Your task to perform on an android device: toggle notifications settings in the gmail app Image 0: 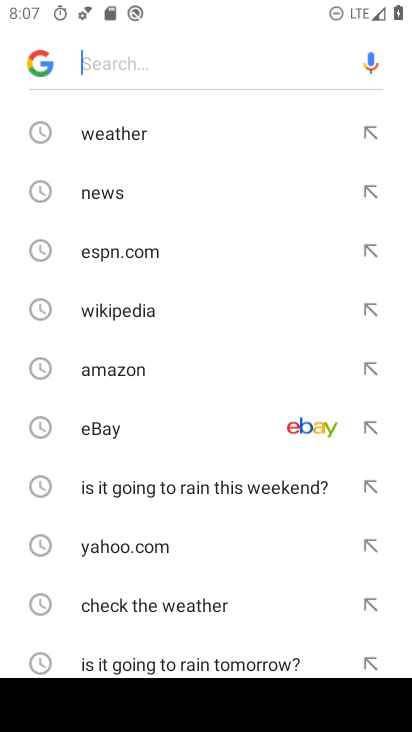
Step 0: press home button
Your task to perform on an android device: toggle notifications settings in the gmail app Image 1: 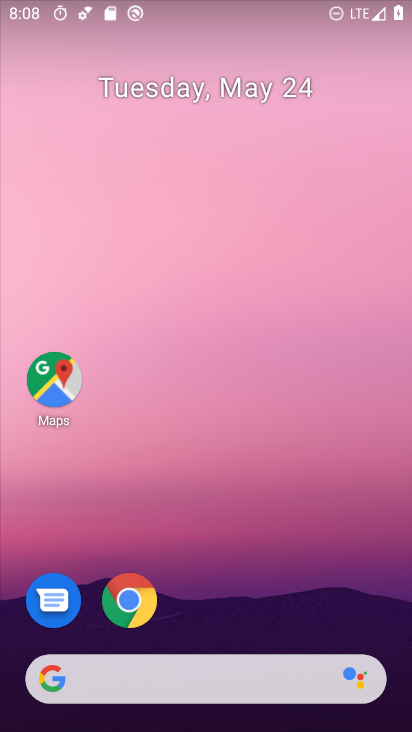
Step 1: drag from (209, 612) to (264, 96)
Your task to perform on an android device: toggle notifications settings in the gmail app Image 2: 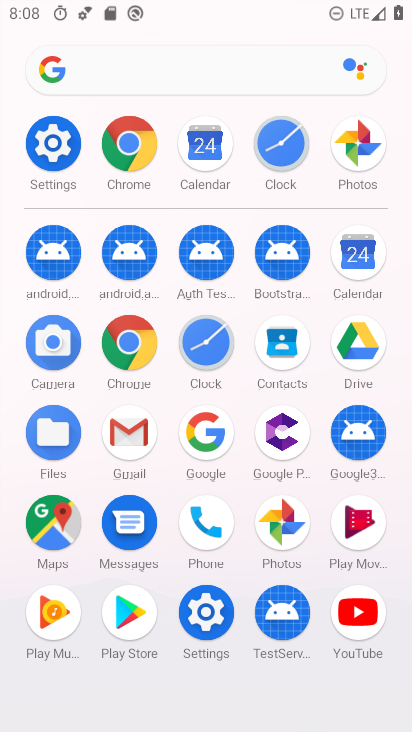
Step 2: click (118, 427)
Your task to perform on an android device: toggle notifications settings in the gmail app Image 3: 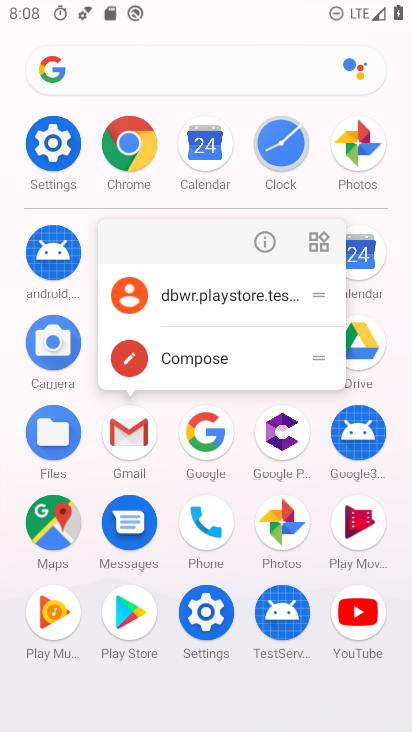
Step 3: click (268, 235)
Your task to perform on an android device: toggle notifications settings in the gmail app Image 4: 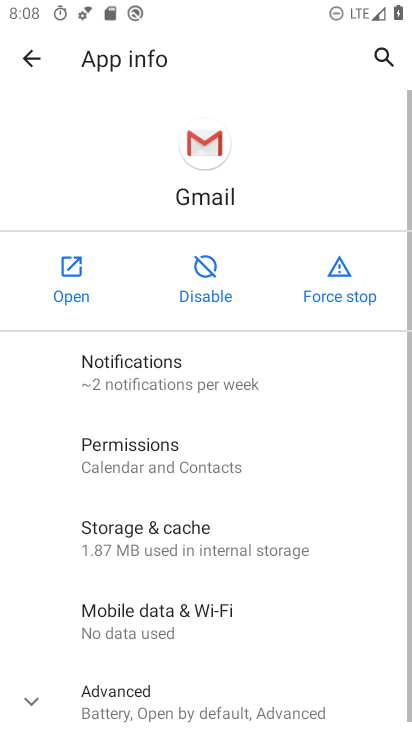
Step 4: click (99, 376)
Your task to perform on an android device: toggle notifications settings in the gmail app Image 5: 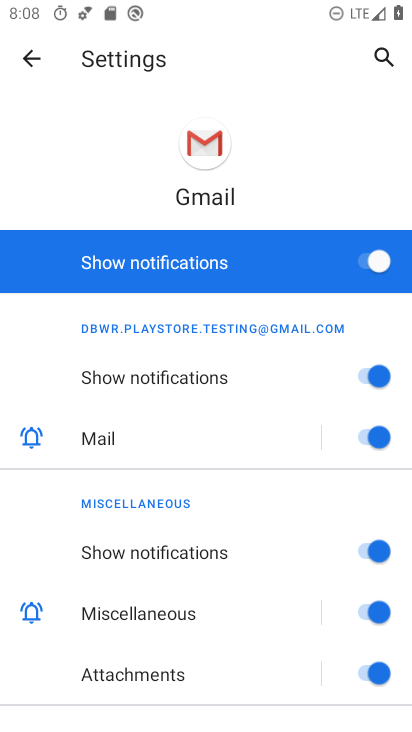
Step 5: click (378, 263)
Your task to perform on an android device: toggle notifications settings in the gmail app Image 6: 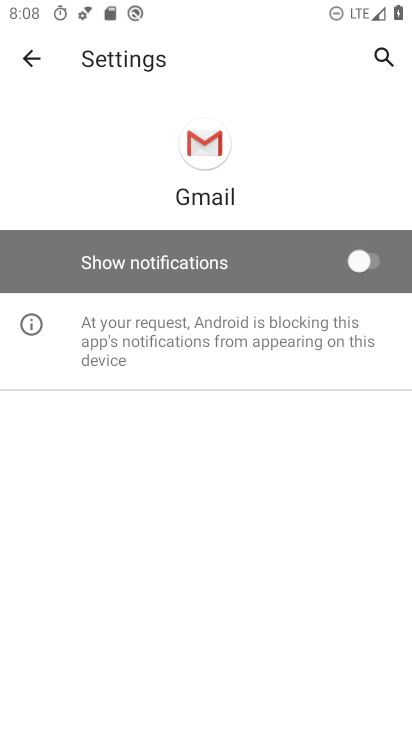
Step 6: task complete